Your task to perform on an android device: Go to sound settings Image 0: 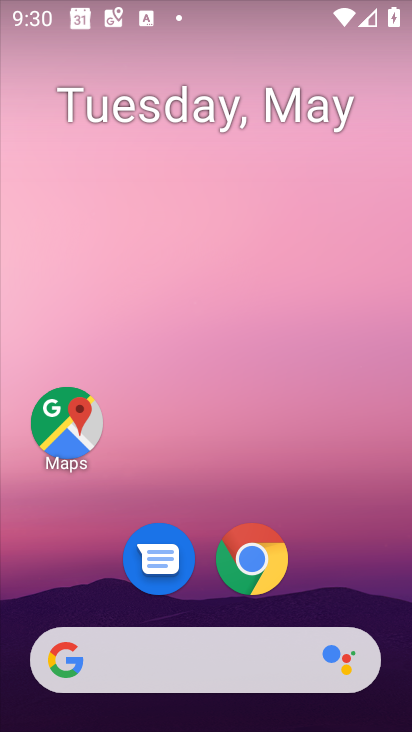
Step 0: drag from (226, 690) to (267, 268)
Your task to perform on an android device: Go to sound settings Image 1: 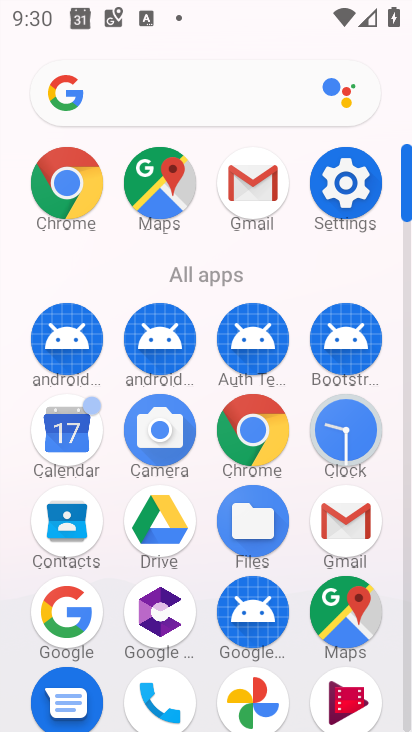
Step 1: click (347, 187)
Your task to perform on an android device: Go to sound settings Image 2: 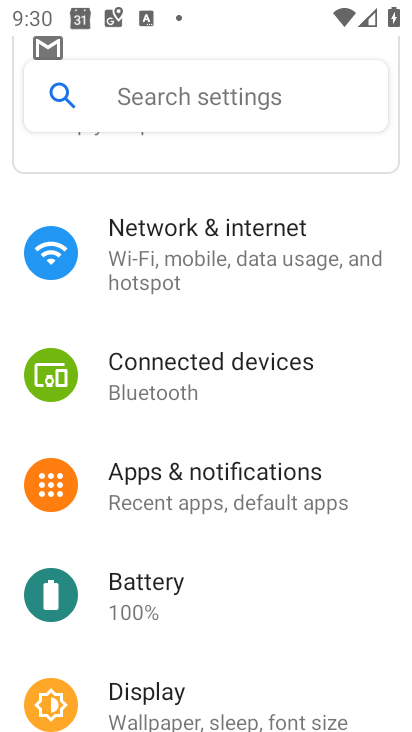
Step 2: drag from (175, 639) to (204, 24)
Your task to perform on an android device: Go to sound settings Image 3: 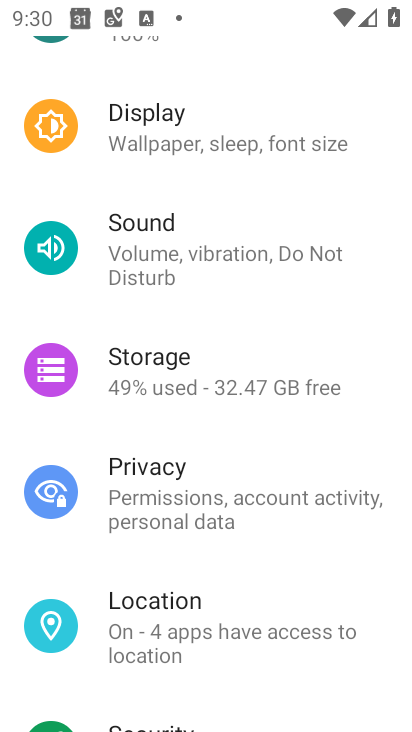
Step 3: click (172, 258)
Your task to perform on an android device: Go to sound settings Image 4: 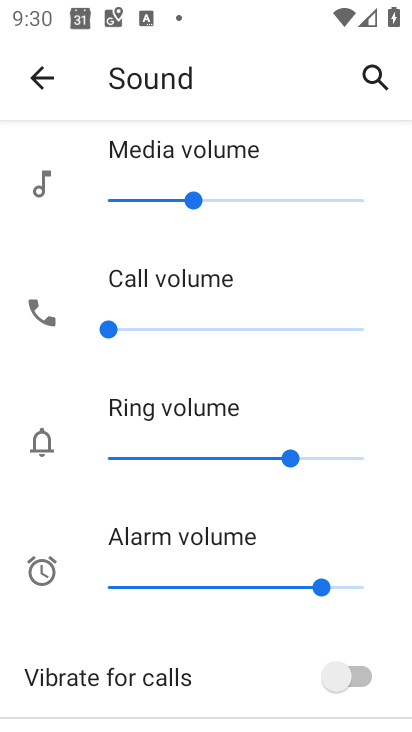
Step 4: task complete